Your task to perform on an android device: Go to internet settings Image 0: 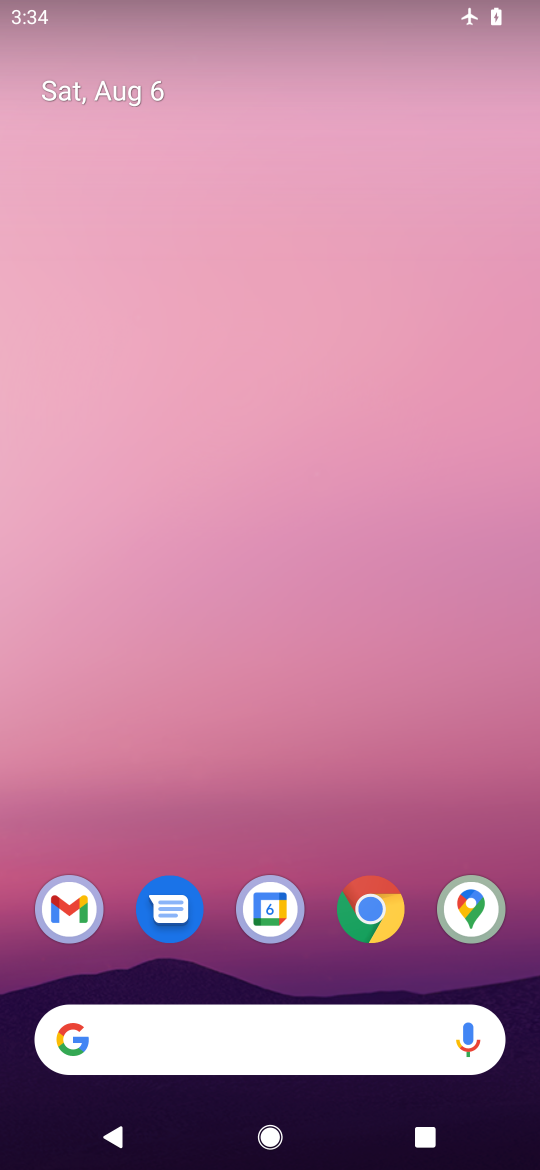
Step 0: drag from (230, 972) to (385, 70)
Your task to perform on an android device: Go to internet settings Image 1: 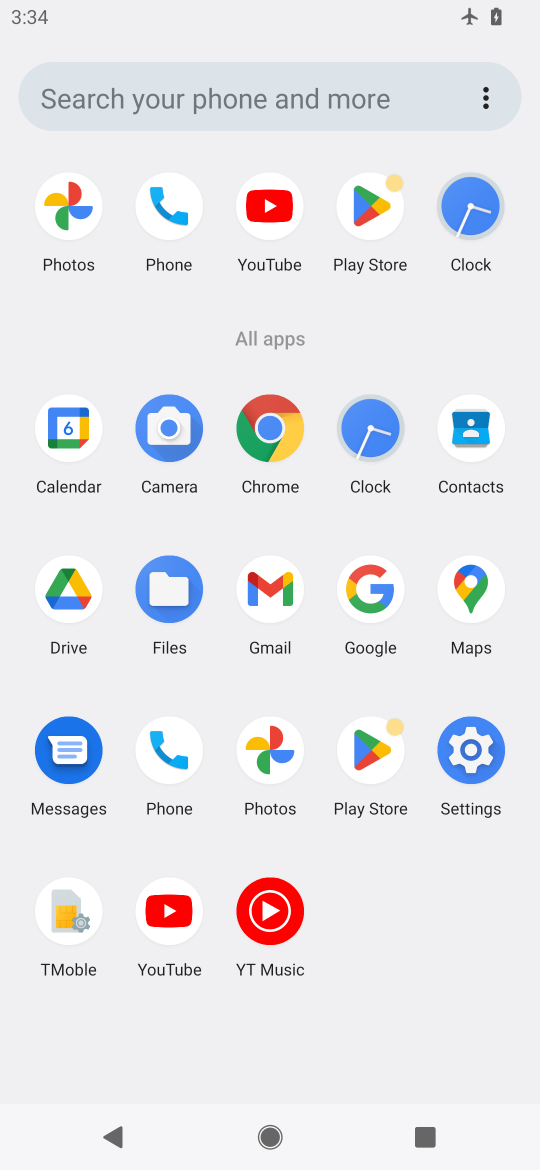
Step 1: click (462, 763)
Your task to perform on an android device: Go to internet settings Image 2: 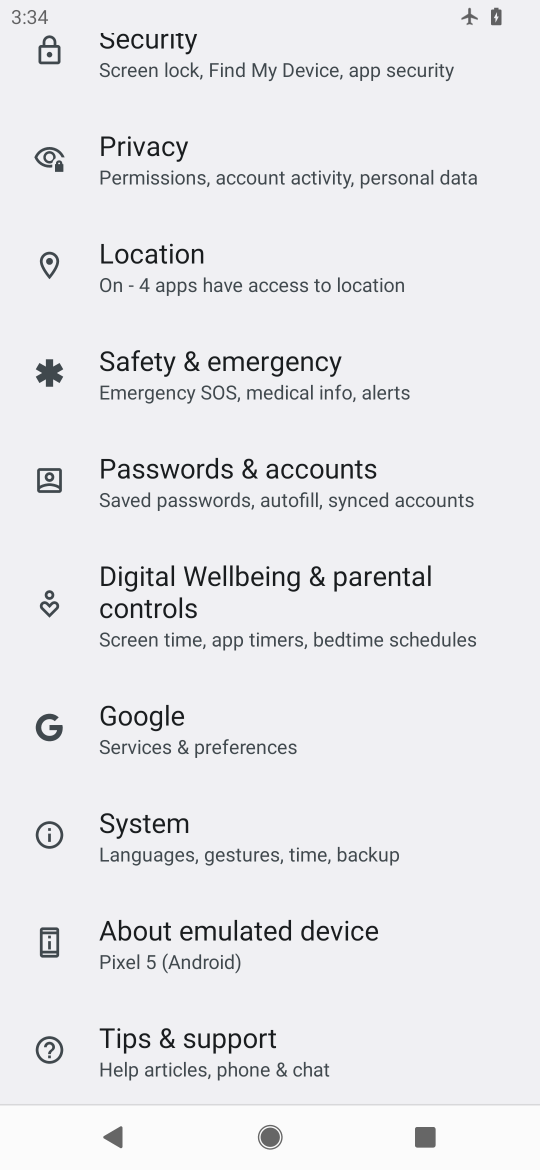
Step 2: drag from (353, 209) to (240, 1116)
Your task to perform on an android device: Go to internet settings Image 3: 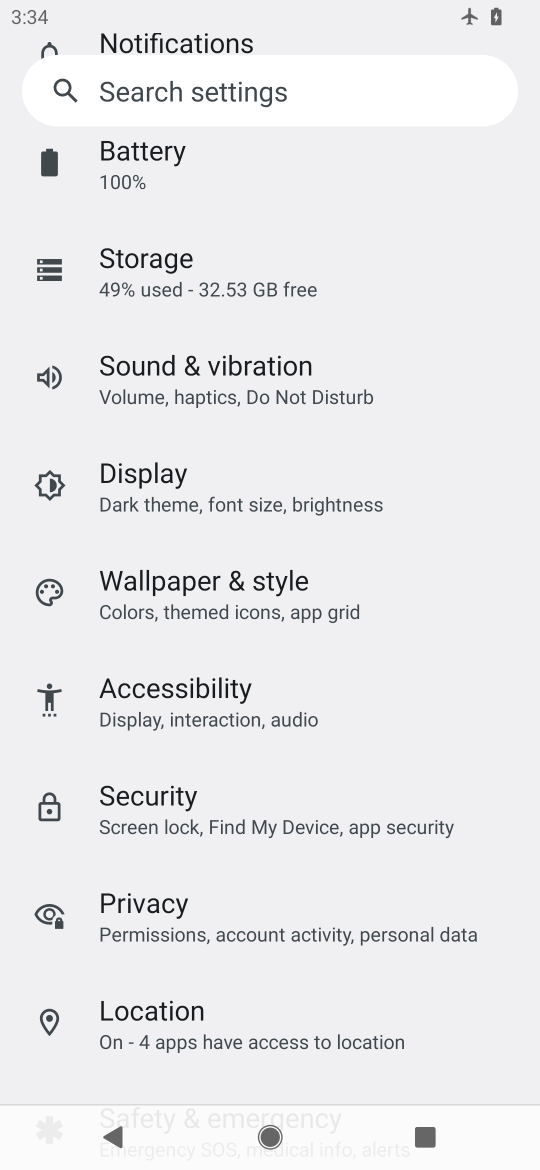
Step 3: drag from (279, 316) to (155, 1028)
Your task to perform on an android device: Go to internet settings Image 4: 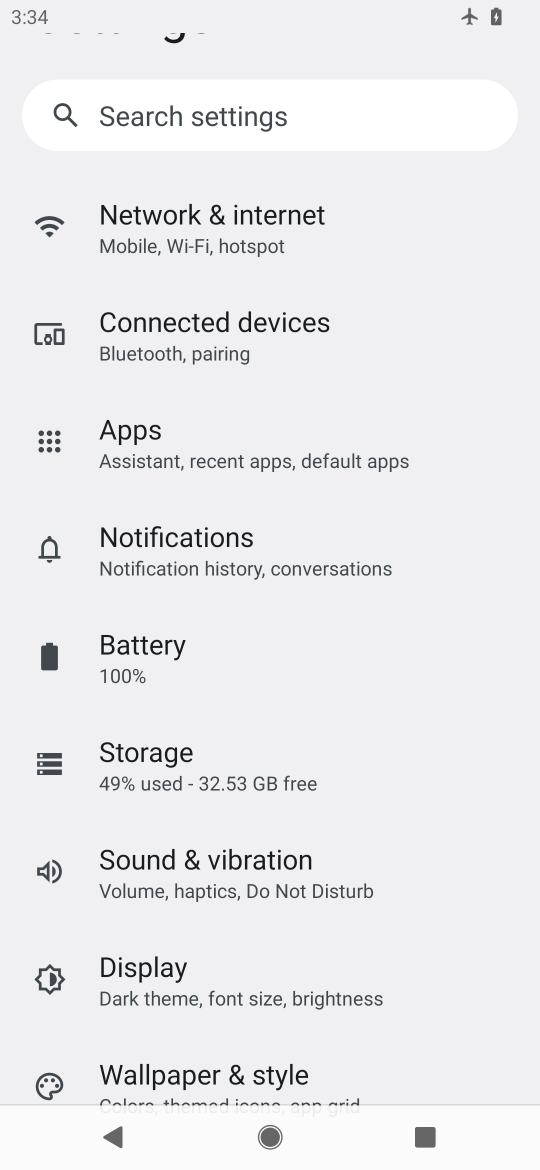
Step 4: click (219, 218)
Your task to perform on an android device: Go to internet settings Image 5: 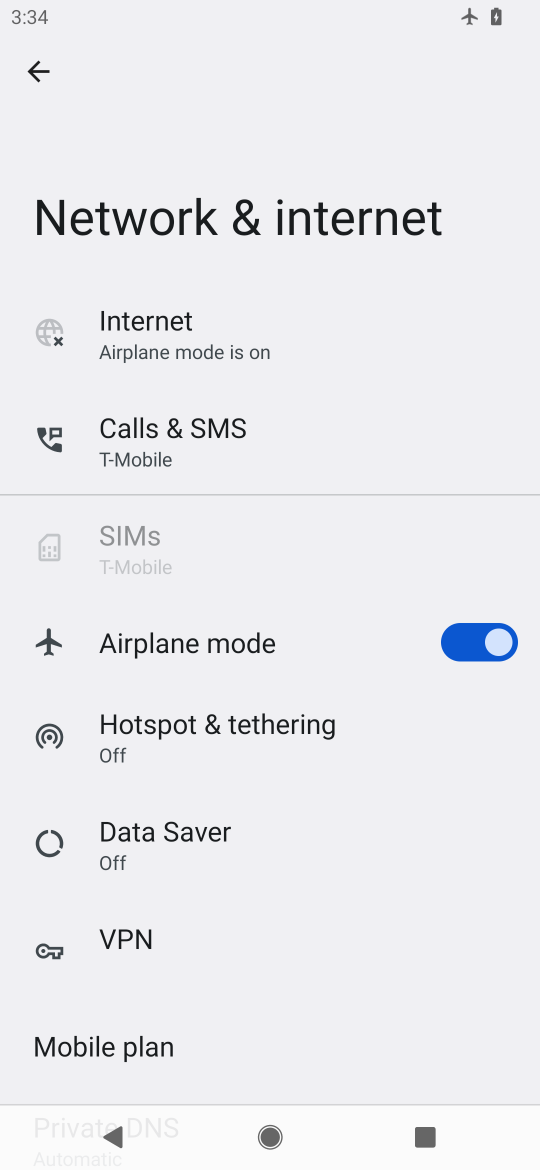
Step 5: task complete